Your task to perform on an android device: Open battery settings Image 0: 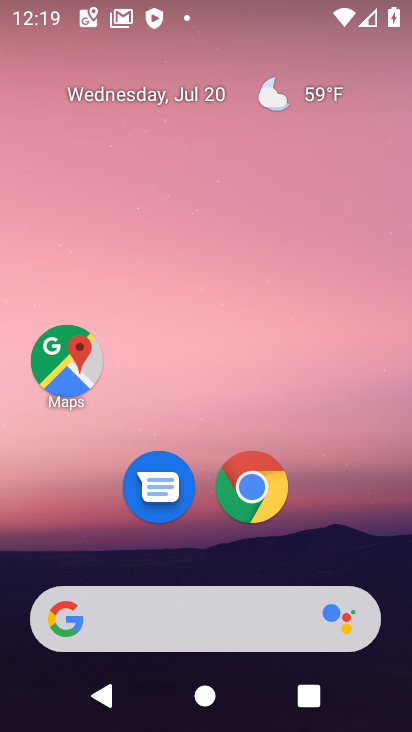
Step 0: drag from (103, 512) to (171, 40)
Your task to perform on an android device: Open battery settings Image 1: 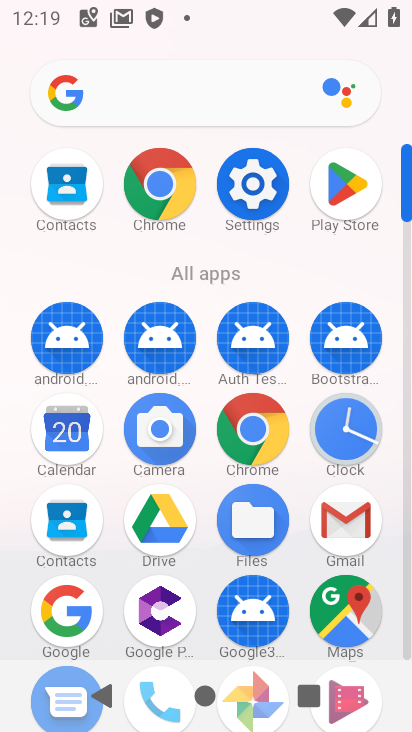
Step 1: click (260, 188)
Your task to perform on an android device: Open battery settings Image 2: 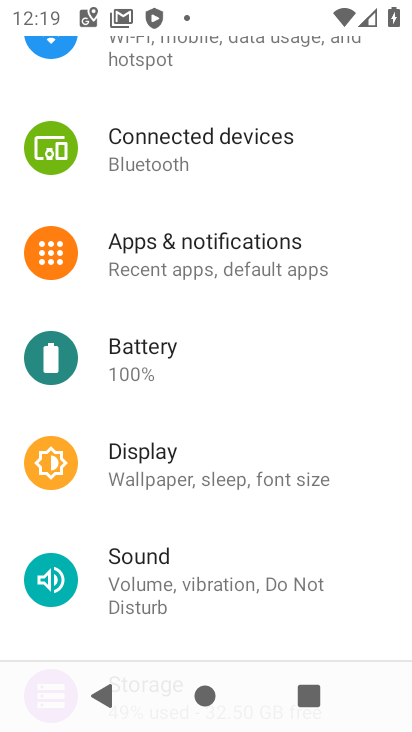
Step 2: click (158, 360)
Your task to perform on an android device: Open battery settings Image 3: 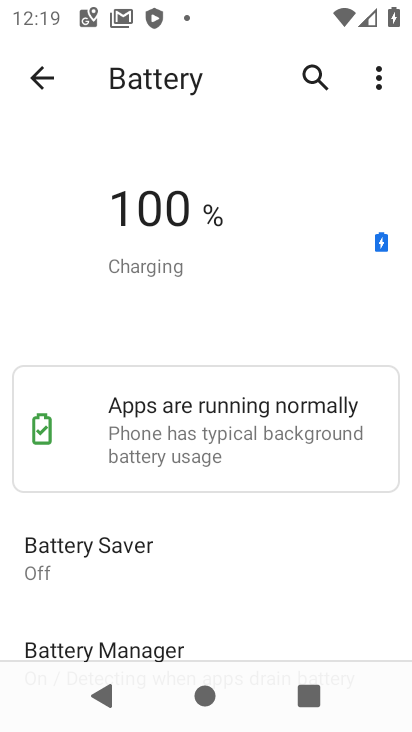
Step 3: task complete